Your task to perform on an android device: Do I have any events tomorrow? Image 0: 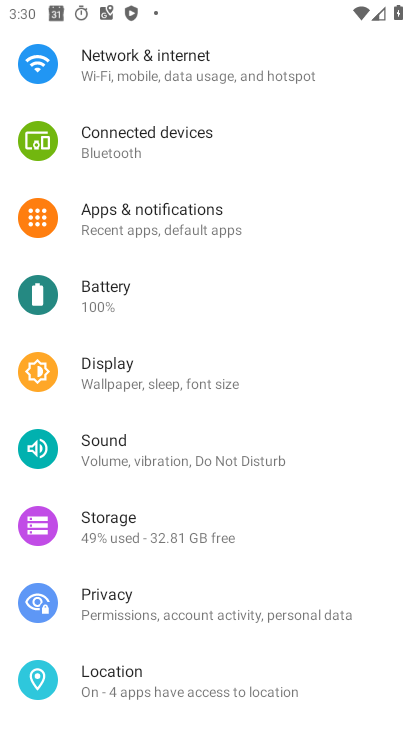
Step 0: press home button
Your task to perform on an android device: Do I have any events tomorrow? Image 1: 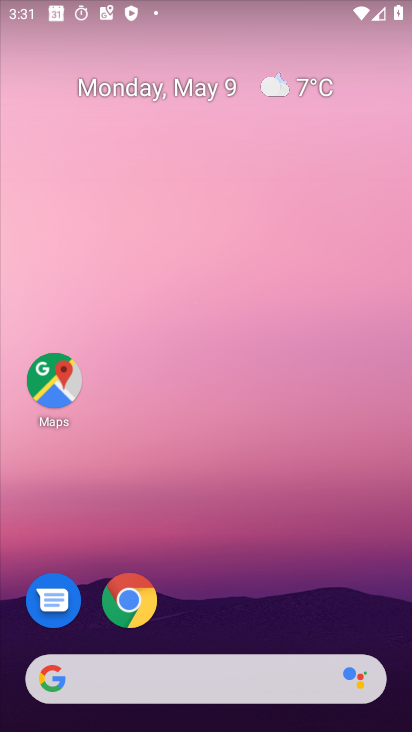
Step 1: drag from (287, 600) to (267, 200)
Your task to perform on an android device: Do I have any events tomorrow? Image 2: 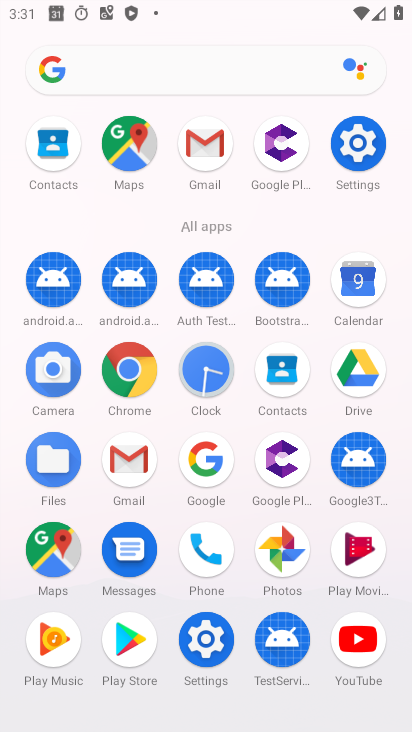
Step 2: click (349, 274)
Your task to perform on an android device: Do I have any events tomorrow? Image 3: 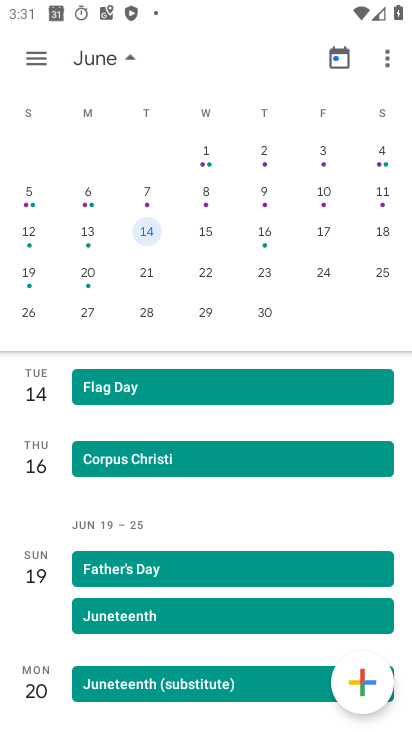
Step 3: drag from (35, 207) to (407, 219)
Your task to perform on an android device: Do I have any events tomorrow? Image 4: 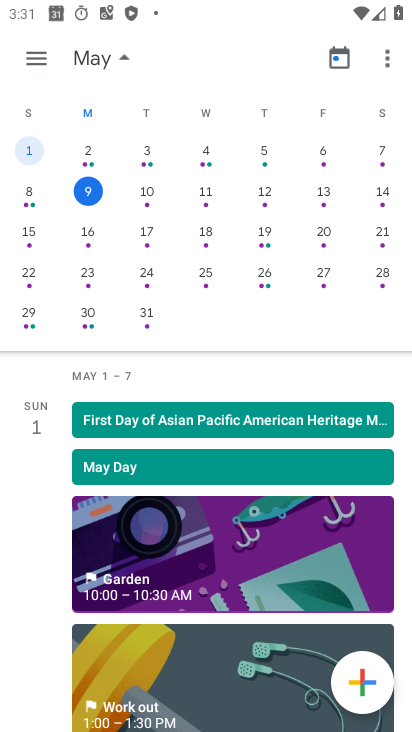
Step 4: click (88, 188)
Your task to perform on an android device: Do I have any events tomorrow? Image 5: 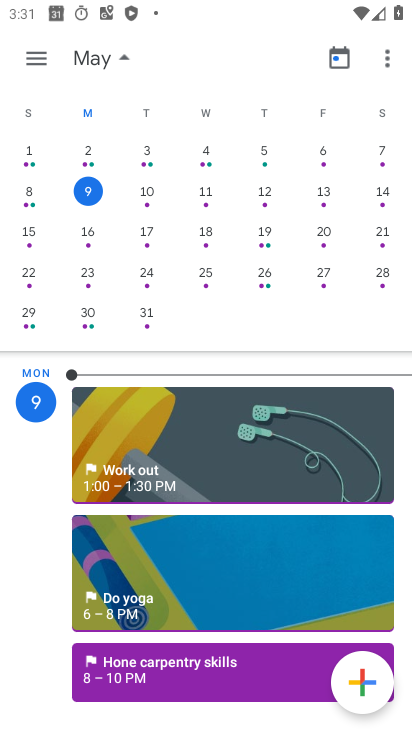
Step 5: click (150, 196)
Your task to perform on an android device: Do I have any events tomorrow? Image 6: 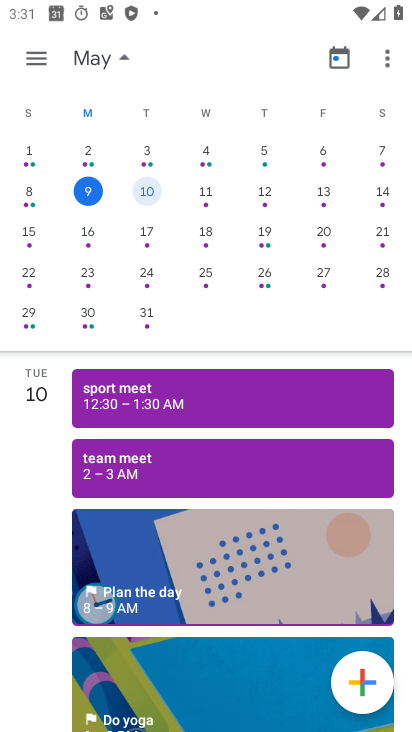
Step 6: task complete